Your task to perform on an android device: open wifi settings Image 0: 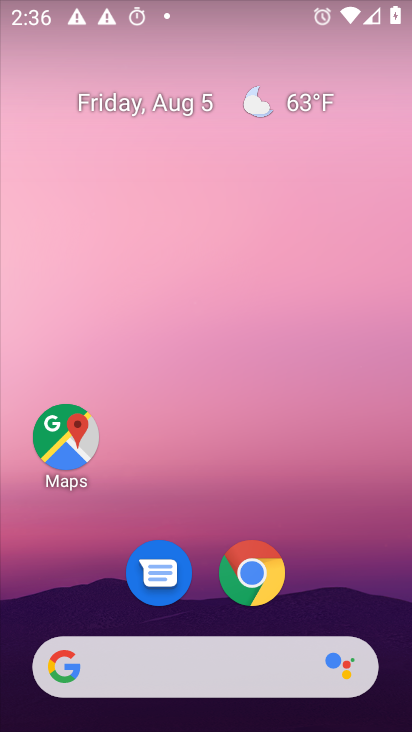
Step 0: press home button
Your task to perform on an android device: open wifi settings Image 1: 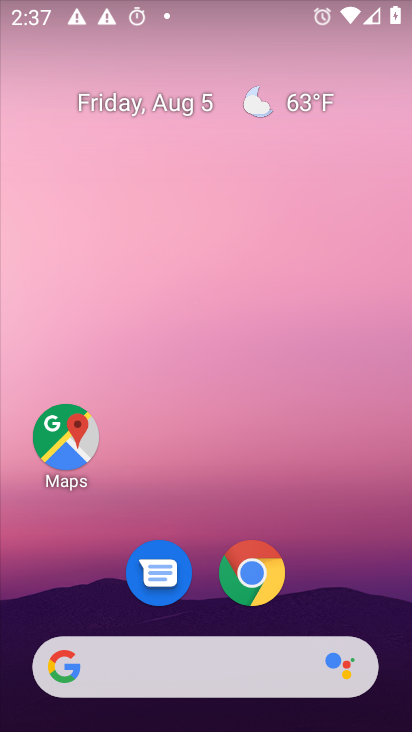
Step 1: drag from (347, 606) to (372, 88)
Your task to perform on an android device: open wifi settings Image 2: 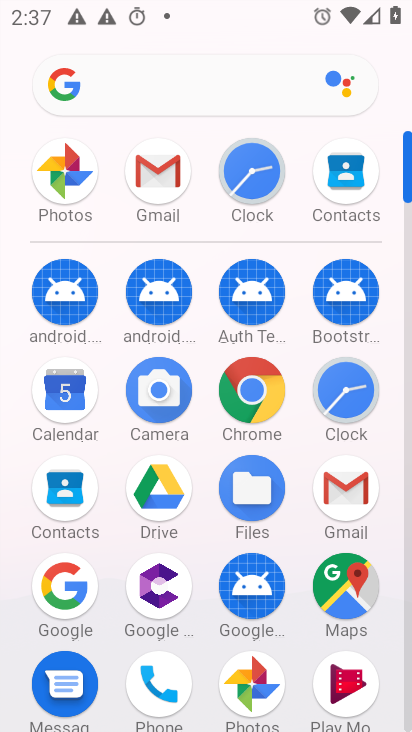
Step 2: drag from (385, 634) to (392, 486)
Your task to perform on an android device: open wifi settings Image 3: 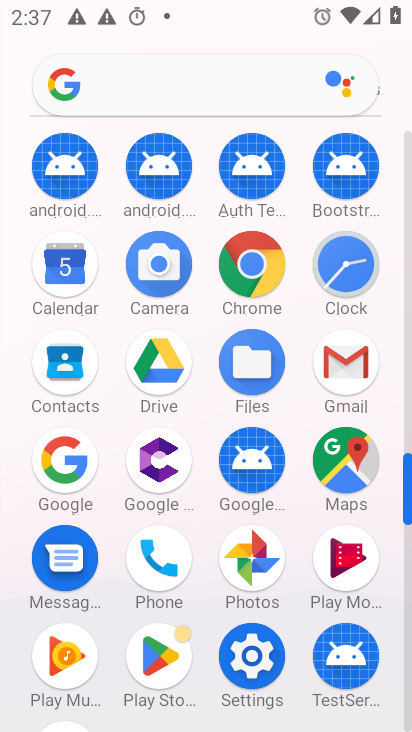
Step 3: click (256, 655)
Your task to perform on an android device: open wifi settings Image 4: 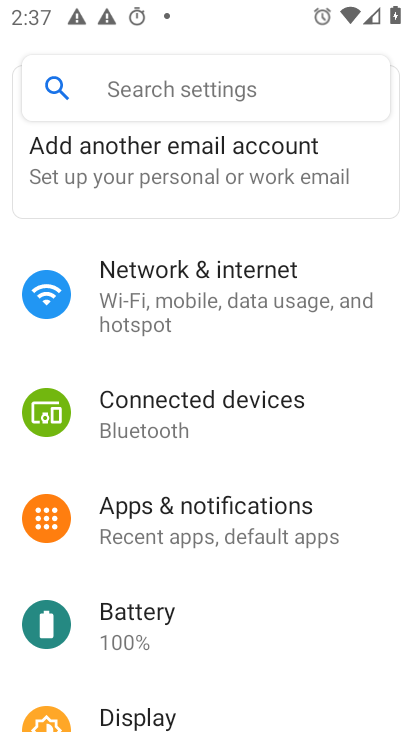
Step 4: click (305, 294)
Your task to perform on an android device: open wifi settings Image 5: 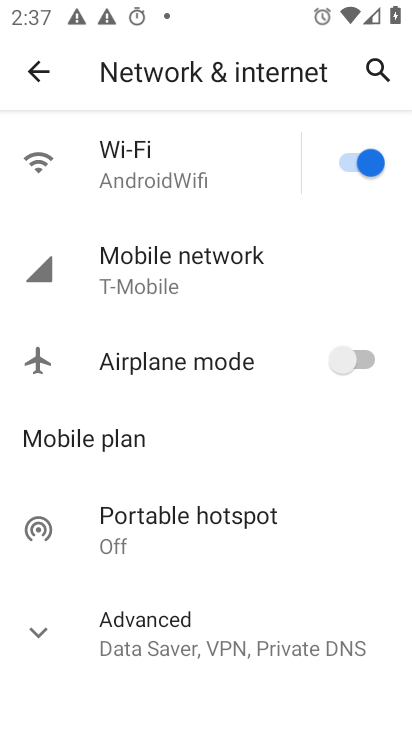
Step 5: click (193, 173)
Your task to perform on an android device: open wifi settings Image 6: 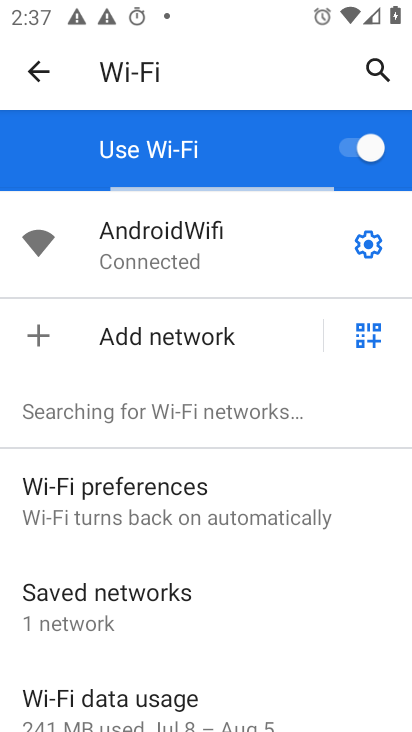
Step 6: task complete